Your task to perform on an android device: Open sound settings Image 0: 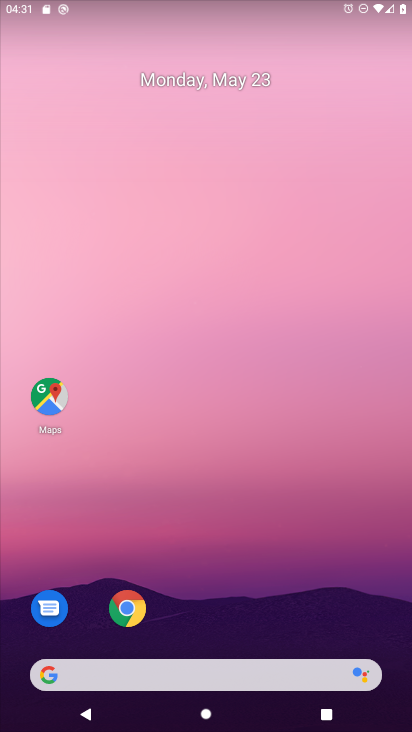
Step 0: drag from (215, 591) to (279, 186)
Your task to perform on an android device: Open sound settings Image 1: 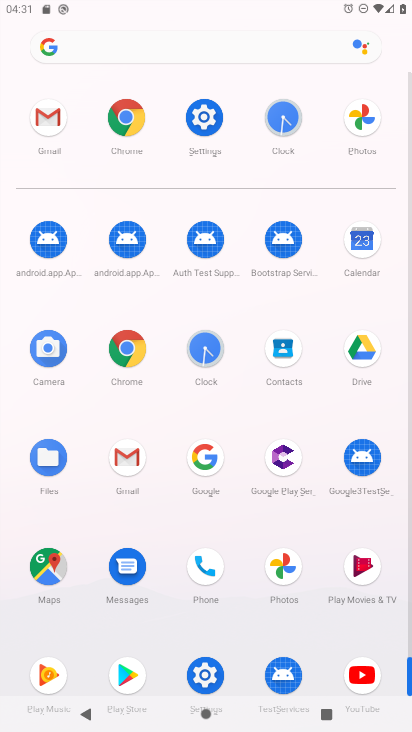
Step 1: click (204, 116)
Your task to perform on an android device: Open sound settings Image 2: 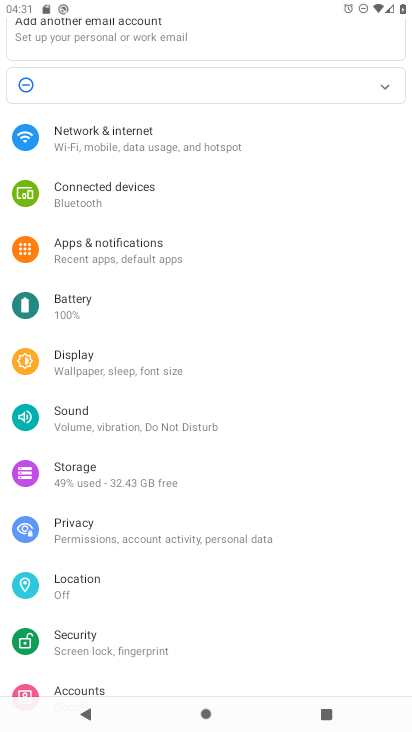
Step 2: click (89, 424)
Your task to perform on an android device: Open sound settings Image 3: 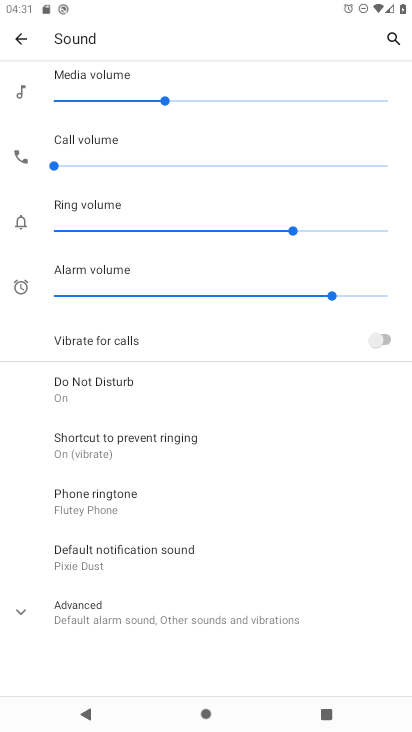
Step 3: task complete